Your task to perform on an android device: Open the stopwatch Image 0: 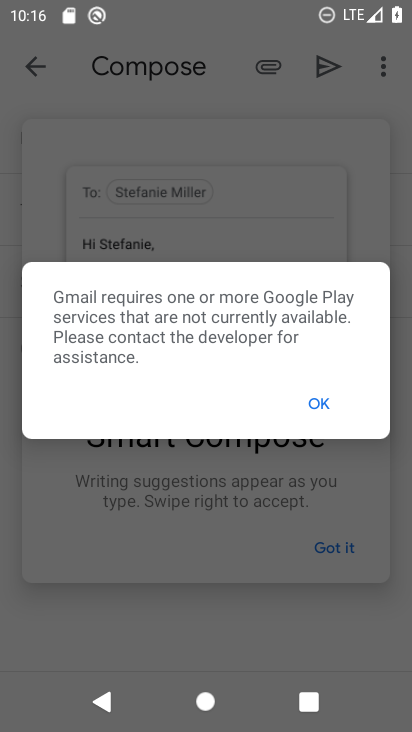
Step 0: press home button
Your task to perform on an android device: Open the stopwatch Image 1: 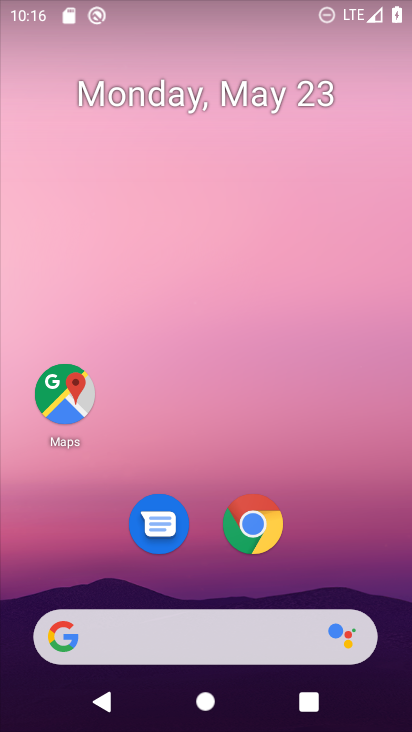
Step 1: drag from (212, 476) to (223, 36)
Your task to perform on an android device: Open the stopwatch Image 2: 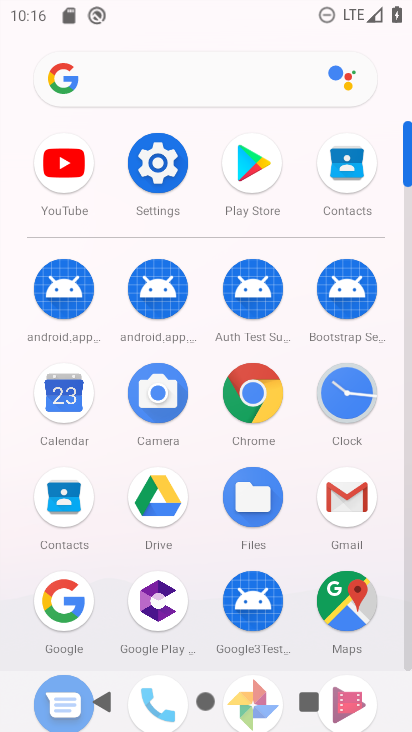
Step 2: click (343, 384)
Your task to perform on an android device: Open the stopwatch Image 3: 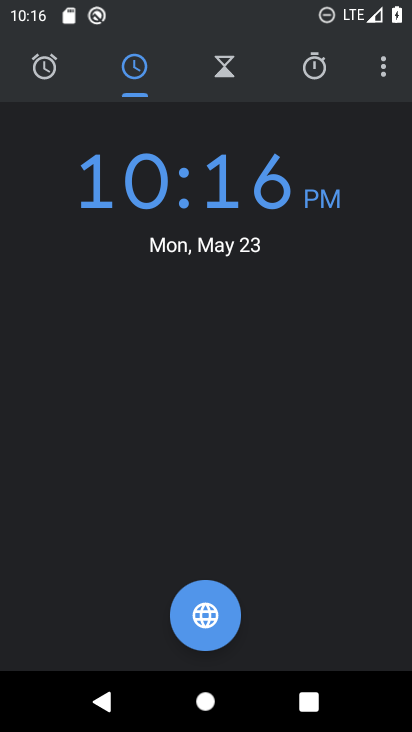
Step 3: click (319, 70)
Your task to perform on an android device: Open the stopwatch Image 4: 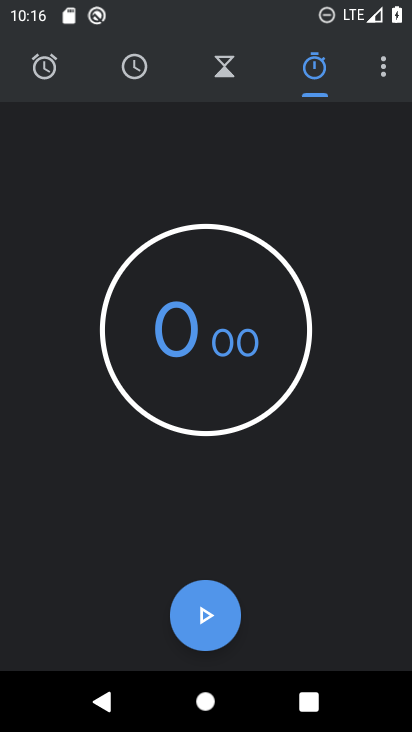
Step 4: task complete